Your task to perform on an android device: turn notification dots off Image 0: 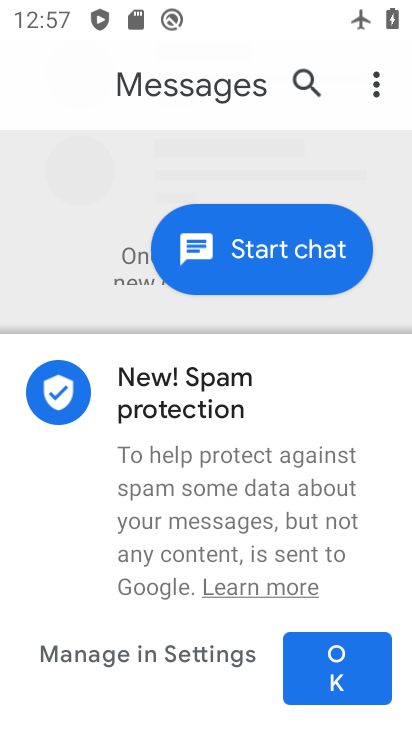
Step 0: drag from (317, 14) to (402, 727)
Your task to perform on an android device: turn notification dots off Image 1: 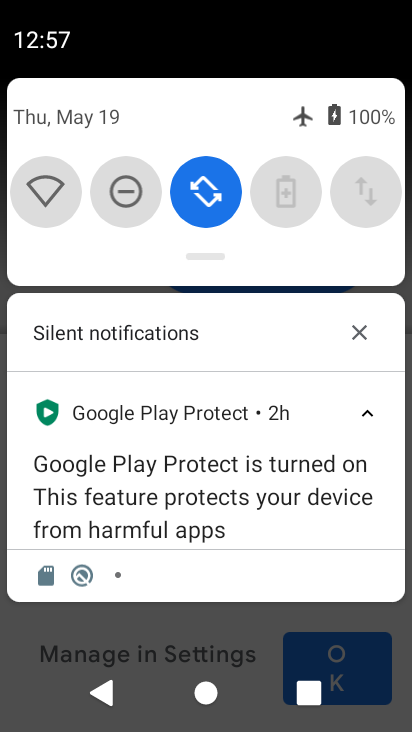
Step 1: drag from (346, 240) to (359, 583)
Your task to perform on an android device: turn notification dots off Image 2: 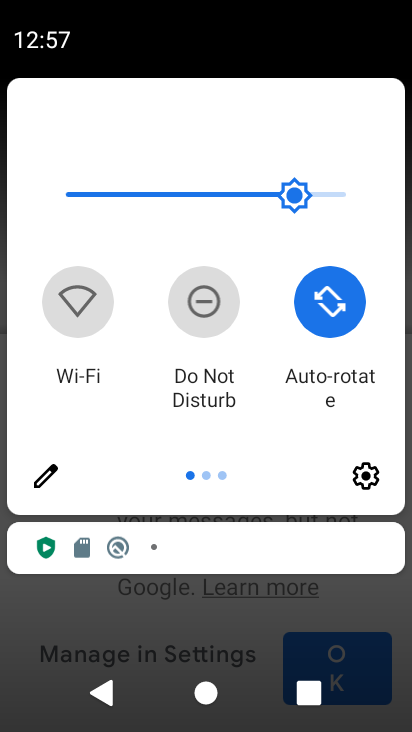
Step 2: drag from (329, 417) to (11, 435)
Your task to perform on an android device: turn notification dots off Image 3: 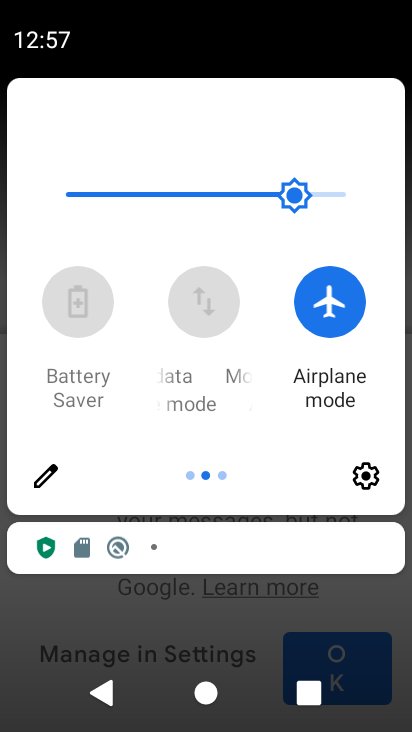
Step 3: click (330, 306)
Your task to perform on an android device: turn notification dots off Image 4: 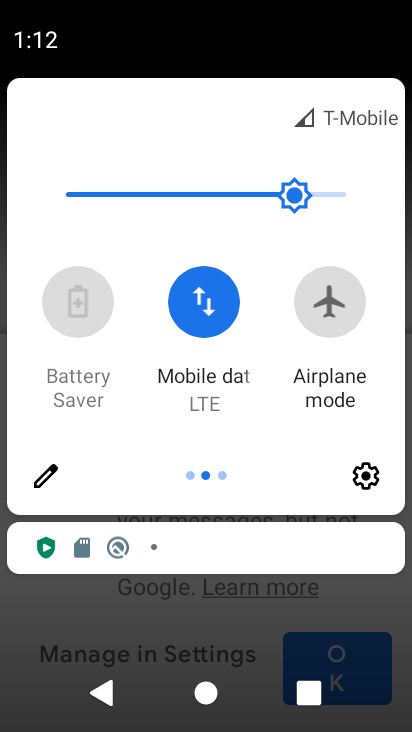
Step 4: drag from (270, 622) to (337, 567)
Your task to perform on an android device: turn notification dots off Image 5: 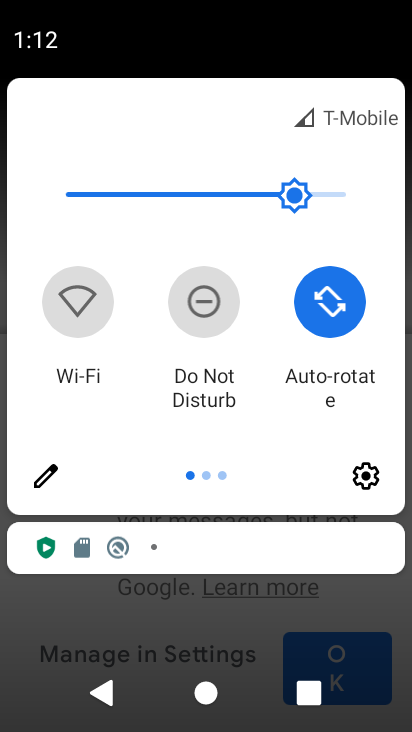
Step 5: drag from (232, 637) to (248, 13)
Your task to perform on an android device: turn notification dots off Image 6: 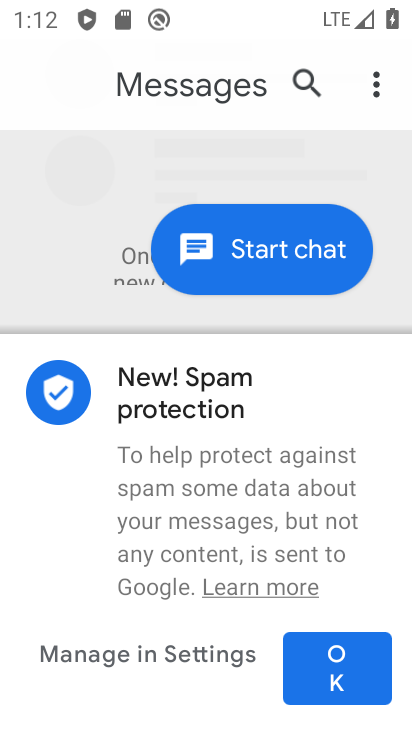
Step 6: press home button
Your task to perform on an android device: turn notification dots off Image 7: 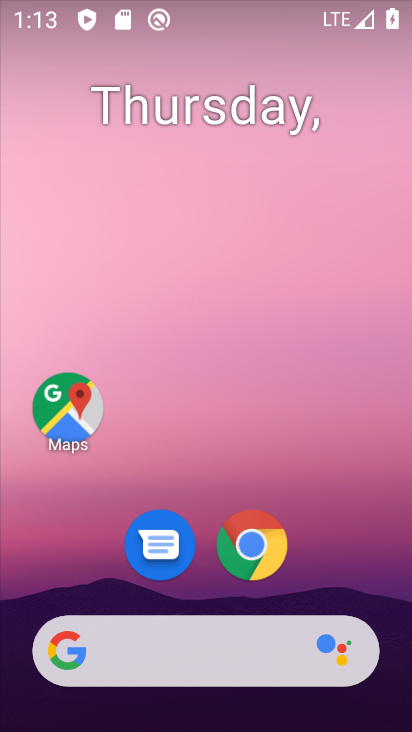
Step 7: drag from (132, 691) to (163, 5)
Your task to perform on an android device: turn notification dots off Image 8: 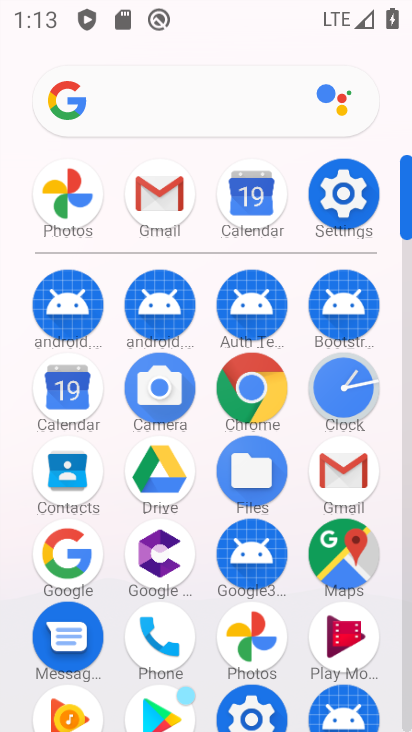
Step 8: click (353, 223)
Your task to perform on an android device: turn notification dots off Image 9: 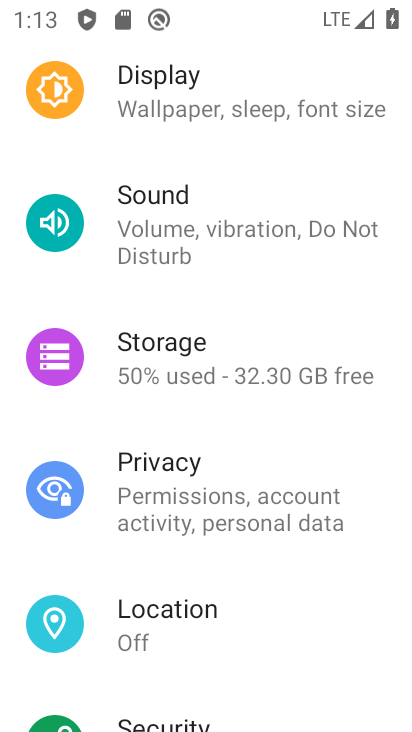
Step 9: drag from (264, 154) to (308, 644)
Your task to perform on an android device: turn notification dots off Image 10: 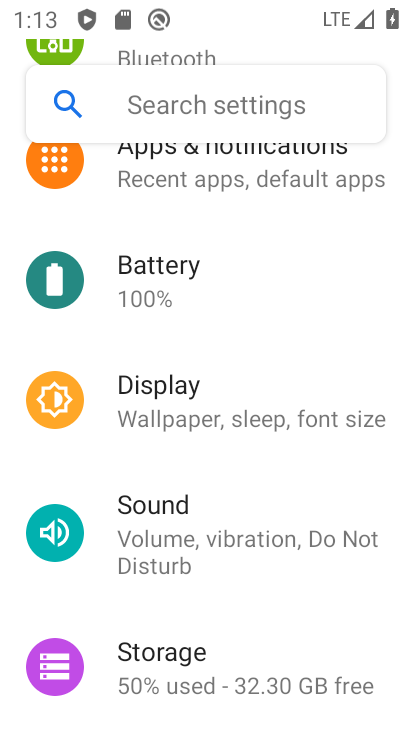
Step 10: click (328, 185)
Your task to perform on an android device: turn notification dots off Image 11: 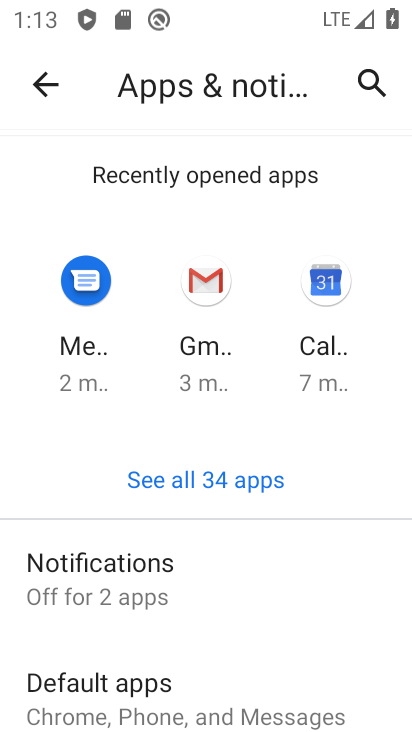
Step 11: drag from (276, 663) to (261, 237)
Your task to perform on an android device: turn notification dots off Image 12: 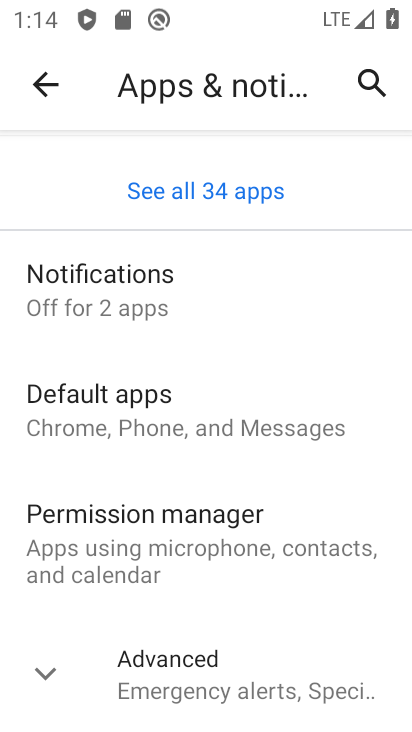
Step 12: click (192, 298)
Your task to perform on an android device: turn notification dots off Image 13: 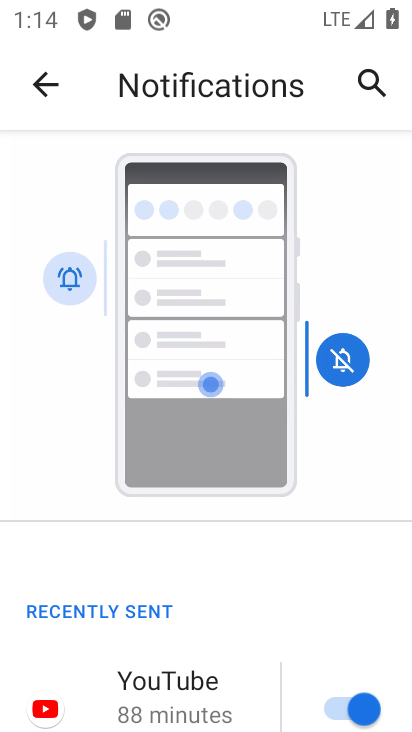
Step 13: drag from (337, 667) to (324, 8)
Your task to perform on an android device: turn notification dots off Image 14: 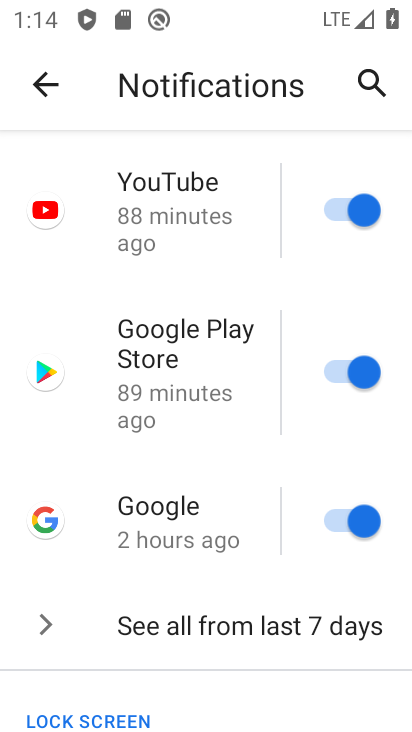
Step 14: drag from (254, 701) to (39, 7)
Your task to perform on an android device: turn notification dots off Image 15: 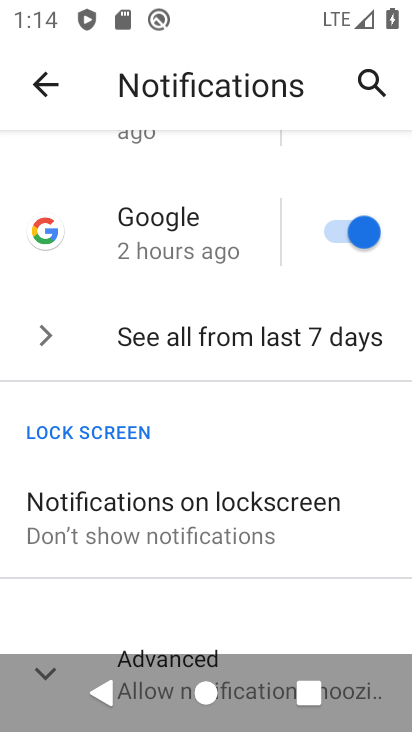
Step 15: drag from (238, 640) to (162, 11)
Your task to perform on an android device: turn notification dots off Image 16: 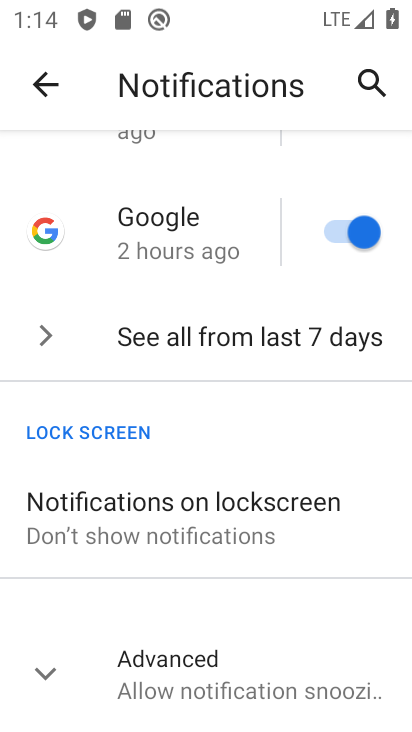
Step 16: click (277, 670)
Your task to perform on an android device: turn notification dots off Image 17: 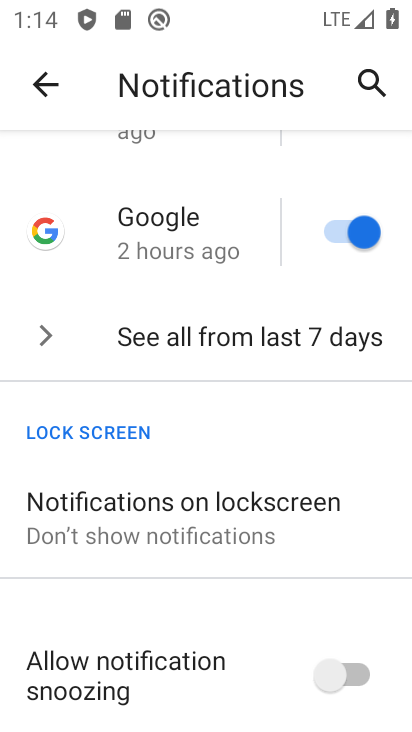
Step 17: drag from (188, 662) to (202, 82)
Your task to perform on an android device: turn notification dots off Image 18: 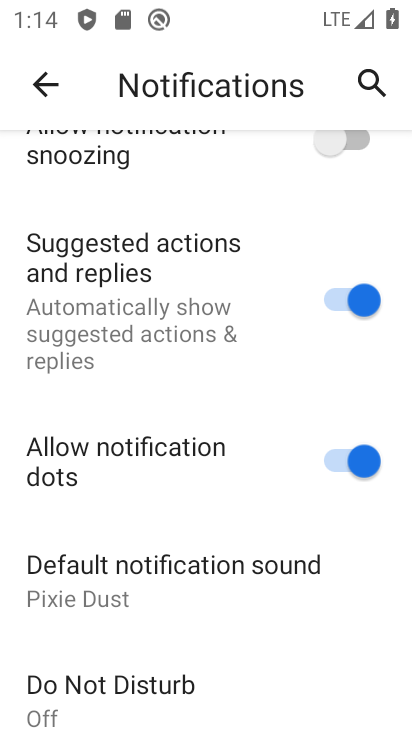
Step 18: drag from (239, 670) to (228, 273)
Your task to perform on an android device: turn notification dots off Image 19: 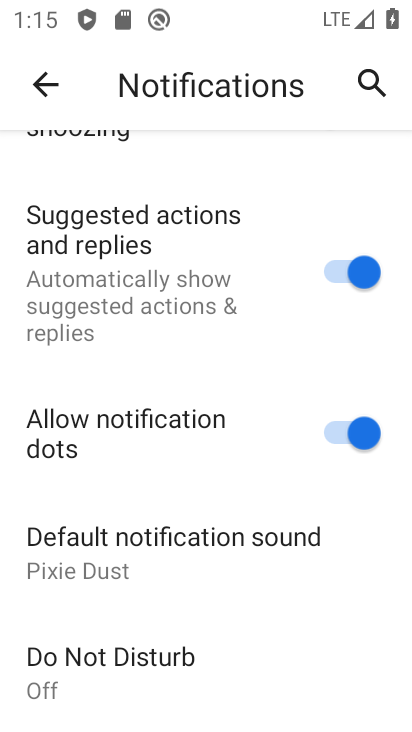
Step 19: click (351, 433)
Your task to perform on an android device: turn notification dots off Image 20: 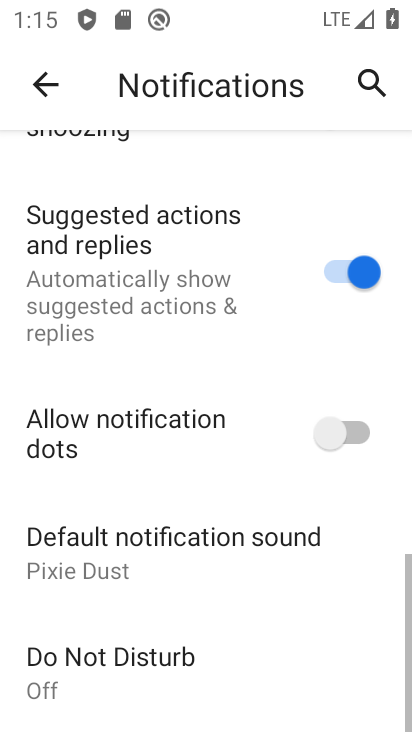
Step 20: task complete